Your task to perform on an android device: change notification settings in the gmail app Image 0: 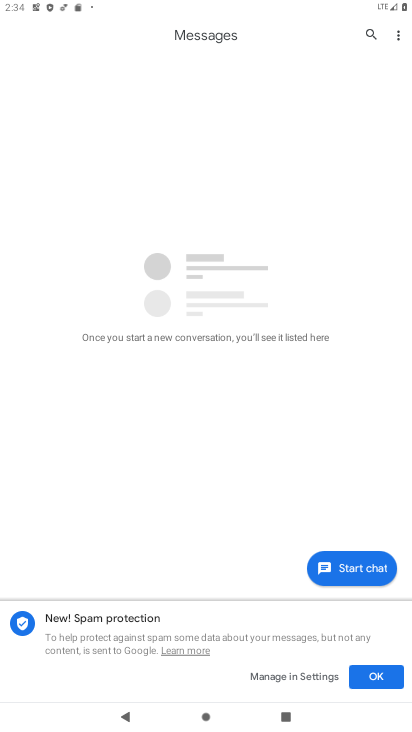
Step 0: click (282, 129)
Your task to perform on an android device: change notification settings in the gmail app Image 1: 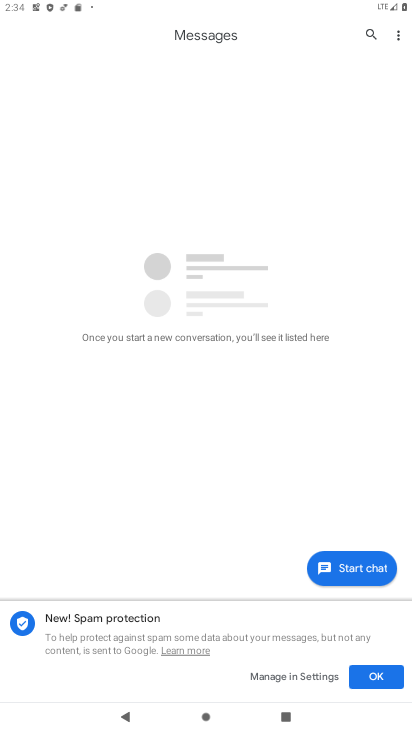
Step 1: press home button
Your task to perform on an android device: change notification settings in the gmail app Image 2: 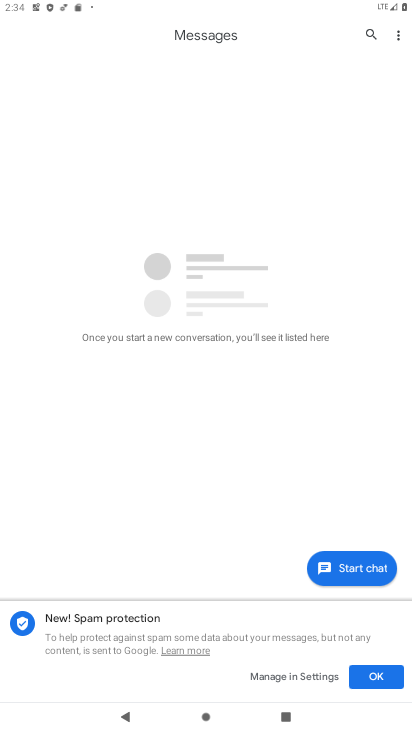
Step 2: click (287, 0)
Your task to perform on an android device: change notification settings in the gmail app Image 3: 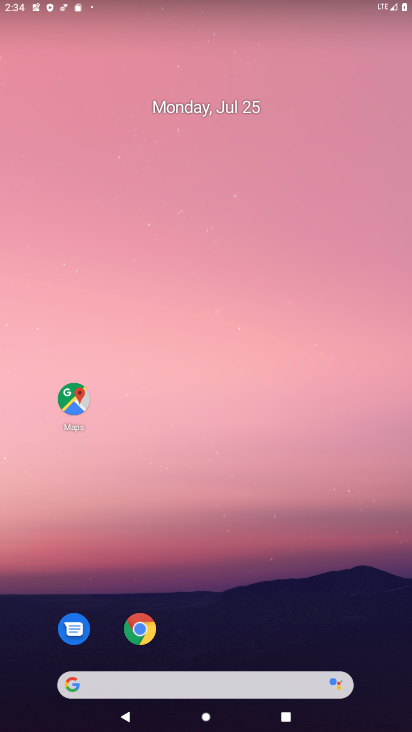
Step 3: drag from (203, 634) to (176, 23)
Your task to perform on an android device: change notification settings in the gmail app Image 4: 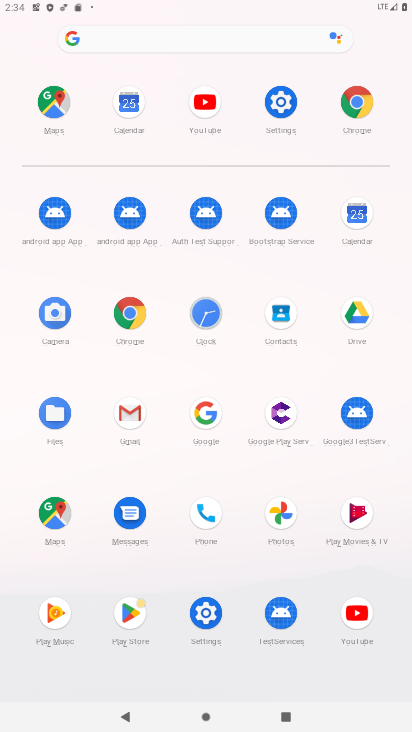
Step 4: click (123, 403)
Your task to perform on an android device: change notification settings in the gmail app Image 5: 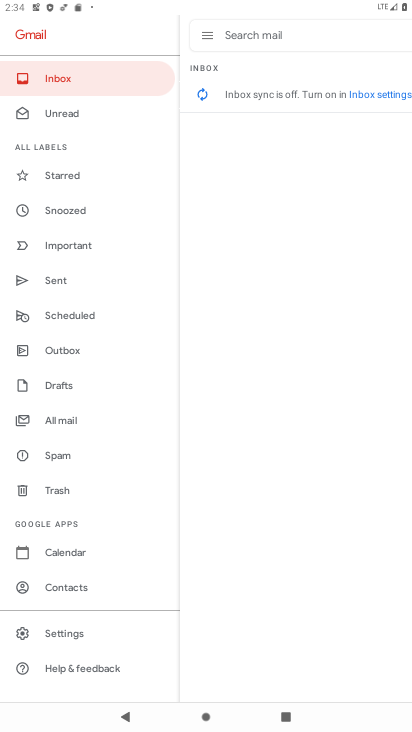
Step 5: click (67, 631)
Your task to perform on an android device: change notification settings in the gmail app Image 6: 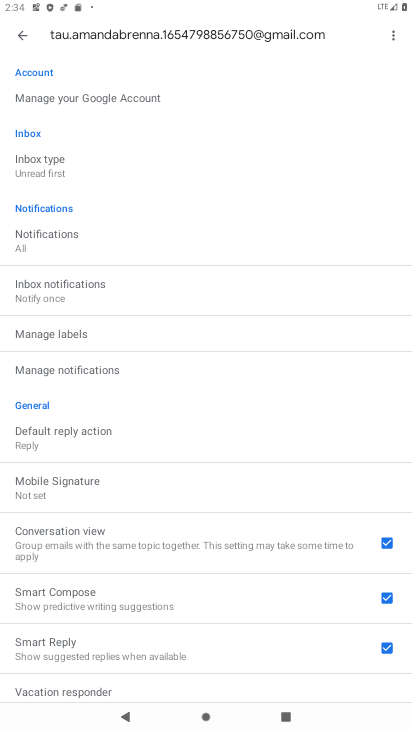
Step 6: click (85, 367)
Your task to perform on an android device: change notification settings in the gmail app Image 7: 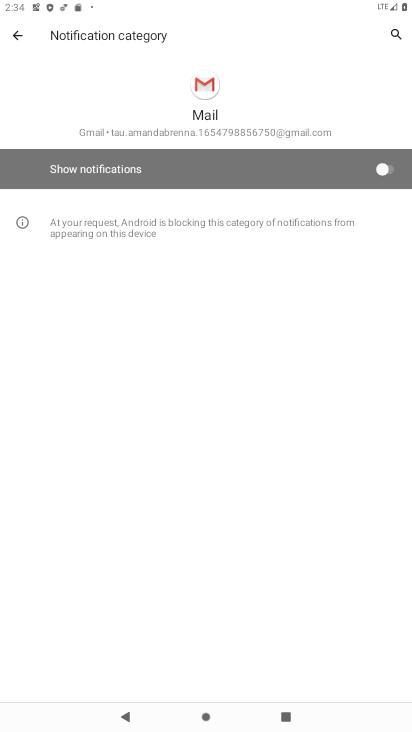
Step 7: drag from (189, 517) to (186, 268)
Your task to perform on an android device: change notification settings in the gmail app Image 8: 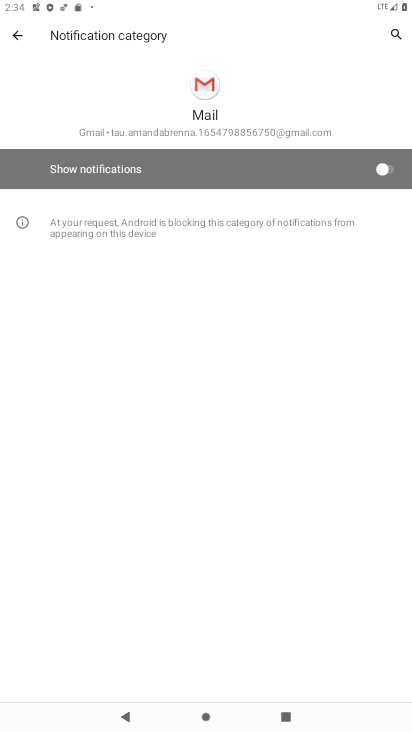
Step 8: drag from (253, 459) to (243, 236)
Your task to perform on an android device: change notification settings in the gmail app Image 9: 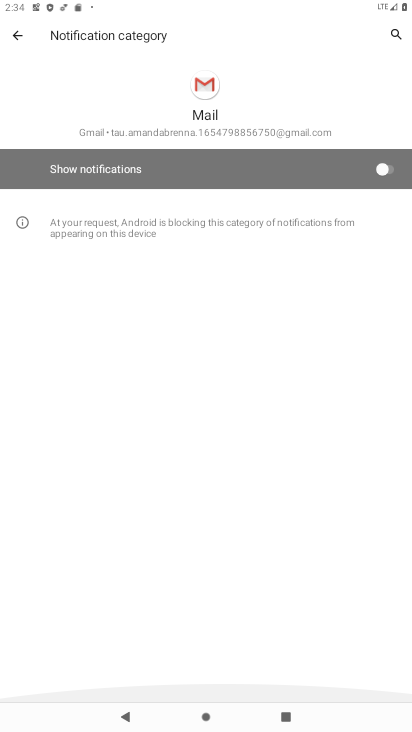
Step 9: click (254, 372)
Your task to perform on an android device: change notification settings in the gmail app Image 10: 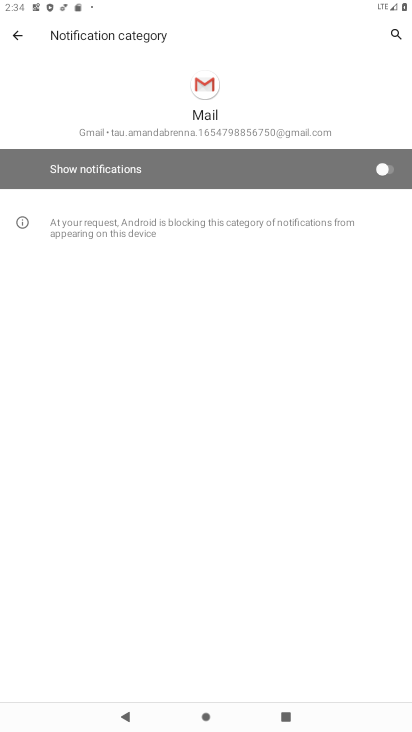
Step 10: drag from (219, 326) to (240, 185)
Your task to perform on an android device: change notification settings in the gmail app Image 11: 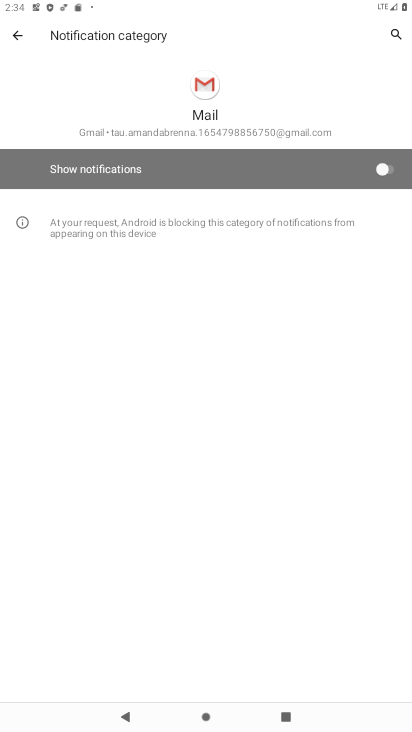
Step 11: drag from (183, 499) to (174, 280)
Your task to perform on an android device: change notification settings in the gmail app Image 12: 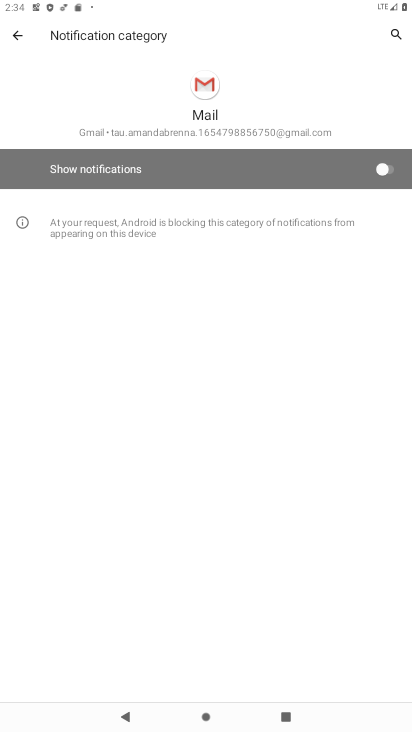
Step 12: click (362, 156)
Your task to perform on an android device: change notification settings in the gmail app Image 13: 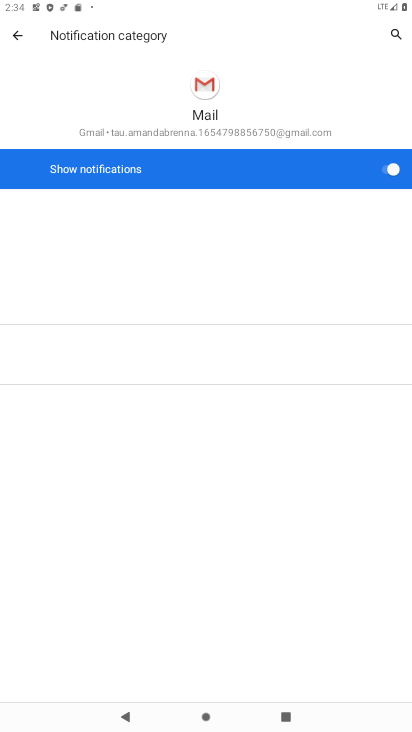
Step 13: task complete